Your task to perform on an android device: Check the news Image 0: 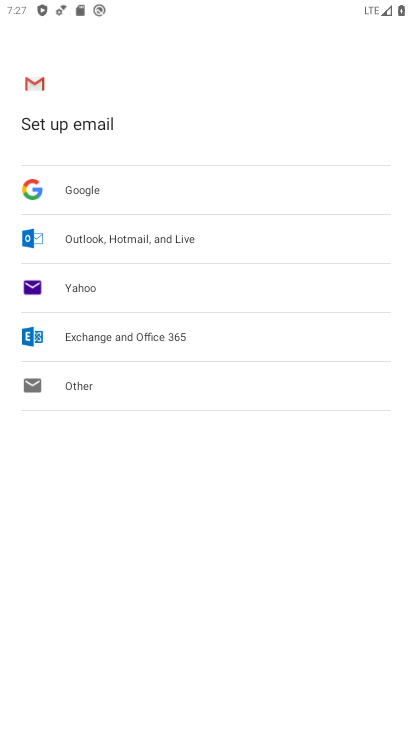
Step 0: press back button
Your task to perform on an android device: Check the news Image 1: 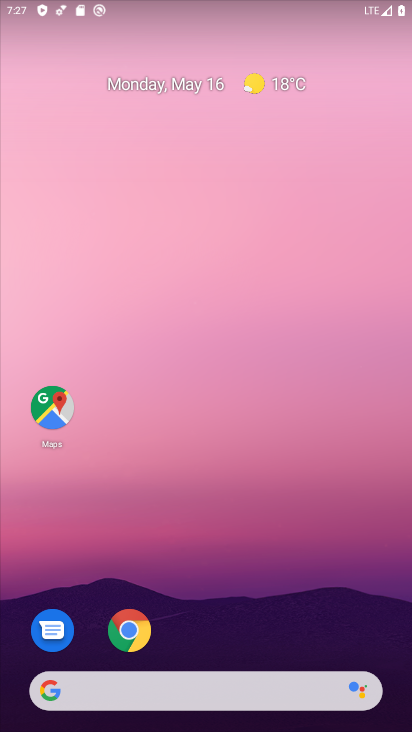
Step 1: drag from (251, 597) to (227, 112)
Your task to perform on an android device: Check the news Image 2: 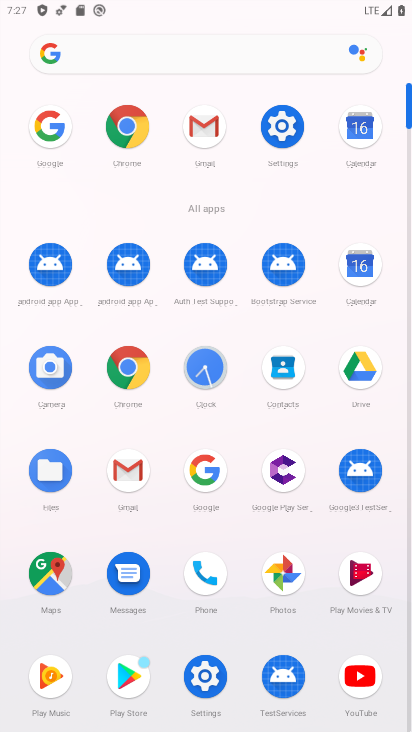
Step 2: click (202, 470)
Your task to perform on an android device: Check the news Image 3: 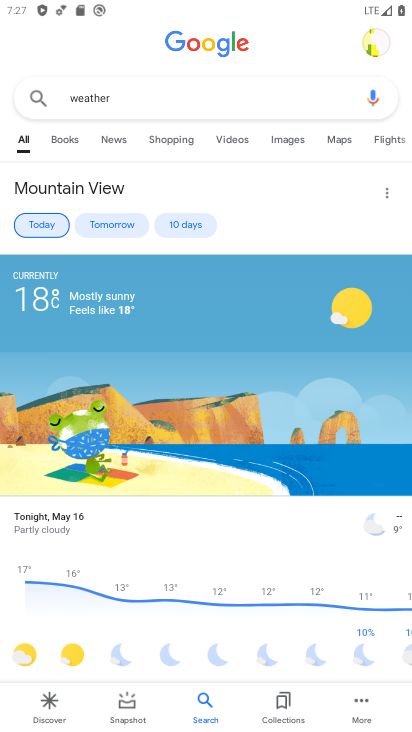
Step 3: click (174, 105)
Your task to perform on an android device: Check the news Image 4: 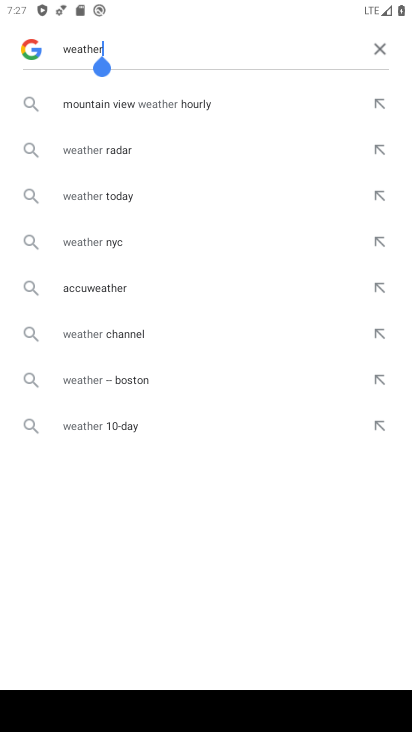
Step 4: click (383, 48)
Your task to perform on an android device: Check the news Image 5: 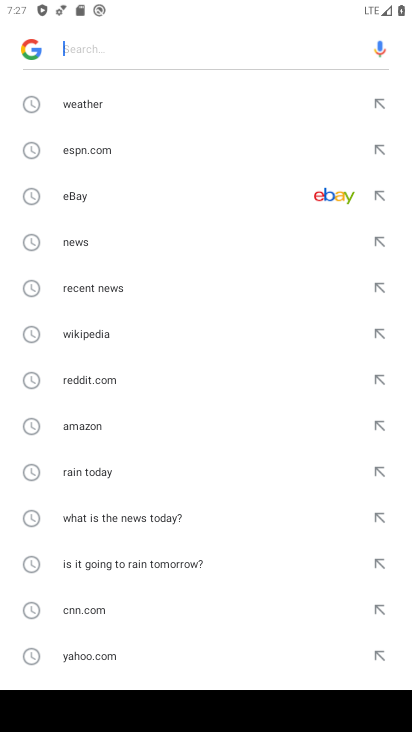
Step 5: click (82, 241)
Your task to perform on an android device: Check the news Image 6: 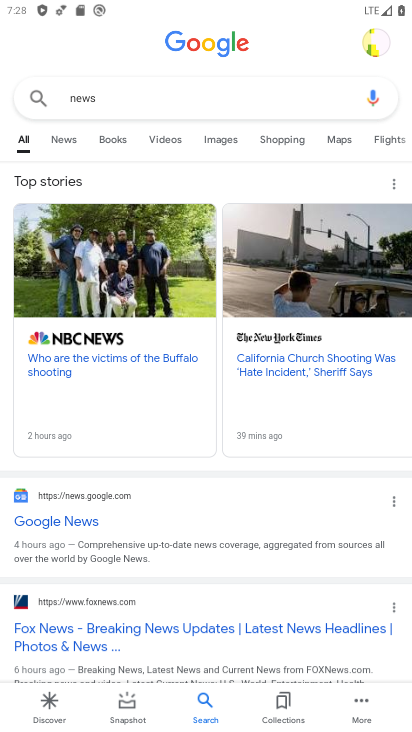
Step 6: task complete